Your task to perform on an android device: Open Yahoo.com Image 0: 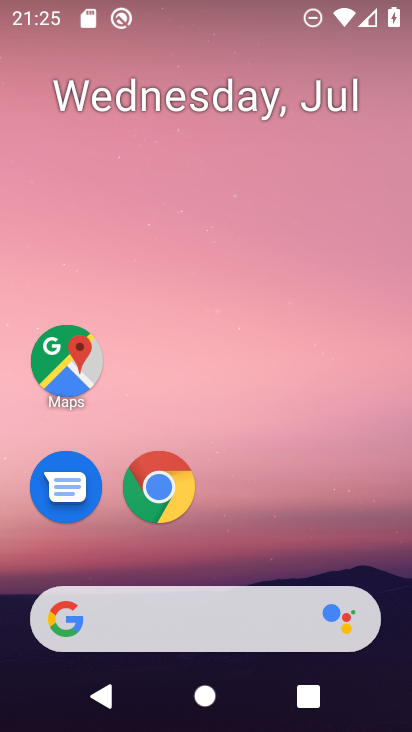
Step 0: press home button
Your task to perform on an android device: Open Yahoo.com Image 1: 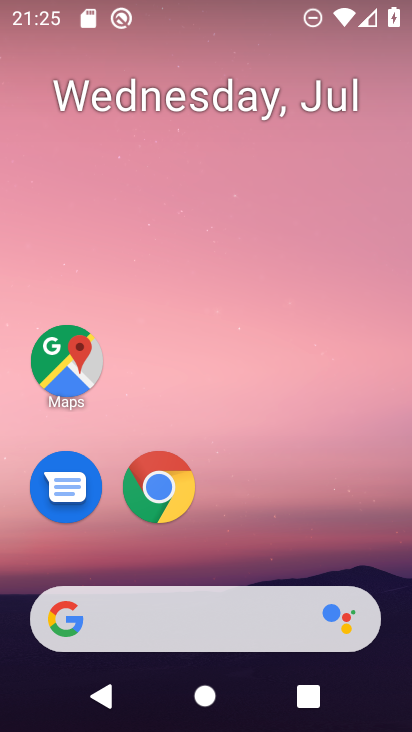
Step 1: drag from (365, 542) to (410, 299)
Your task to perform on an android device: Open Yahoo.com Image 2: 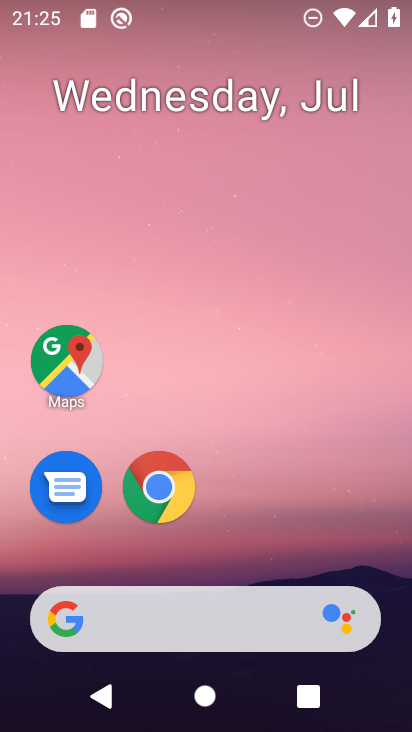
Step 2: drag from (387, 578) to (375, 76)
Your task to perform on an android device: Open Yahoo.com Image 3: 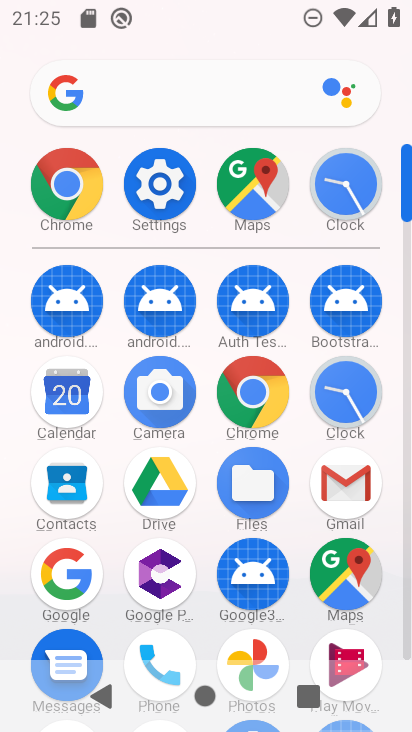
Step 3: click (265, 392)
Your task to perform on an android device: Open Yahoo.com Image 4: 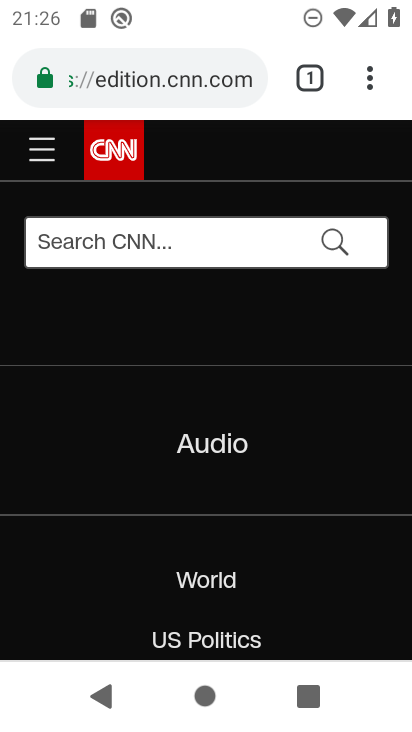
Step 4: click (213, 91)
Your task to perform on an android device: Open Yahoo.com Image 5: 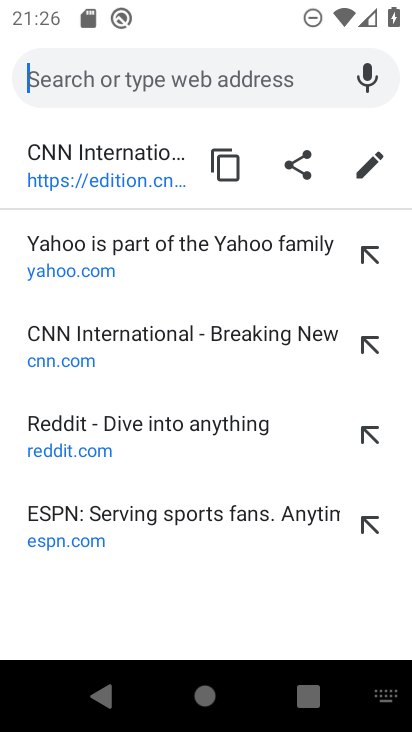
Step 5: type "yahoo.com"
Your task to perform on an android device: Open Yahoo.com Image 6: 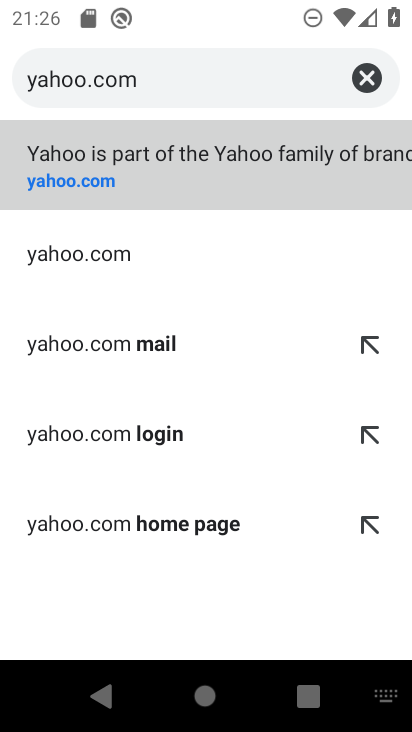
Step 6: click (254, 169)
Your task to perform on an android device: Open Yahoo.com Image 7: 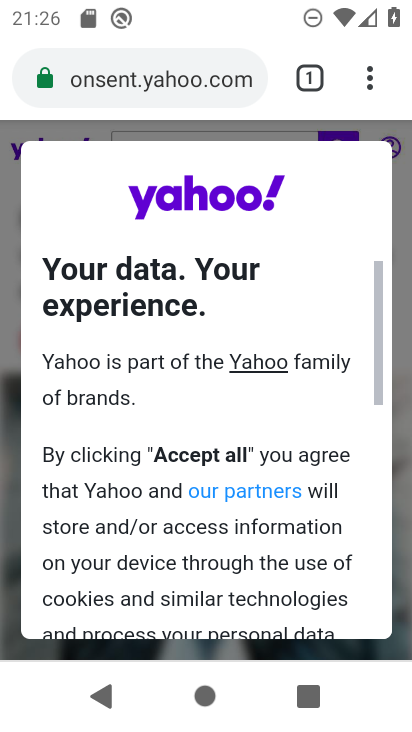
Step 7: task complete